Your task to perform on an android device: Turn on the flashlight Image 0: 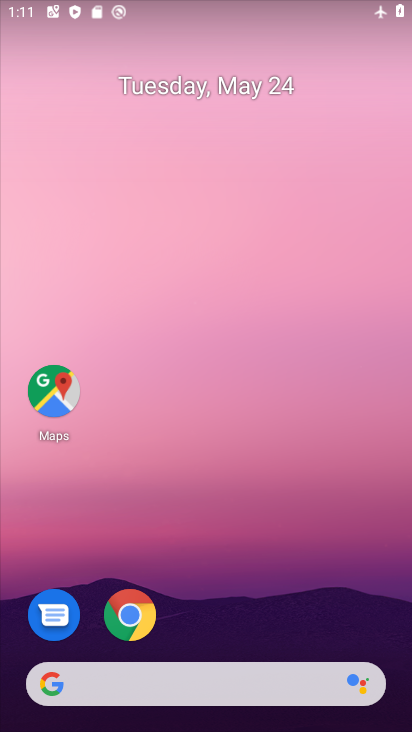
Step 0: drag from (146, 629) to (278, 16)
Your task to perform on an android device: Turn on the flashlight Image 1: 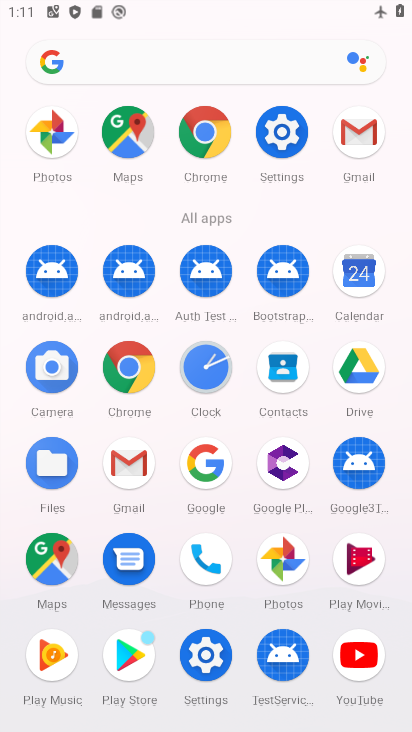
Step 1: click (281, 135)
Your task to perform on an android device: Turn on the flashlight Image 2: 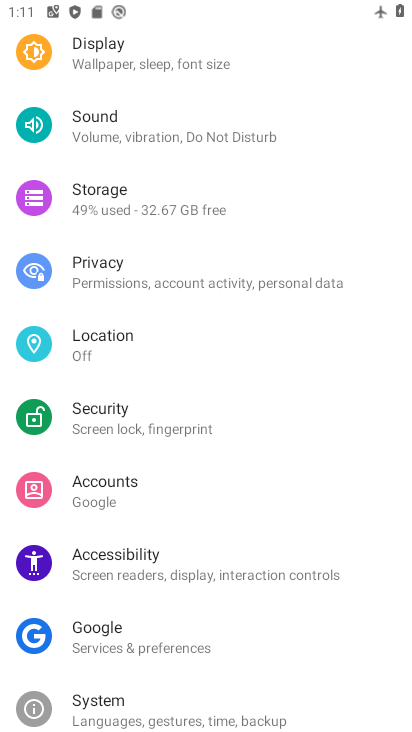
Step 2: drag from (211, 144) to (179, 726)
Your task to perform on an android device: Turn on the flashlight Image 3: 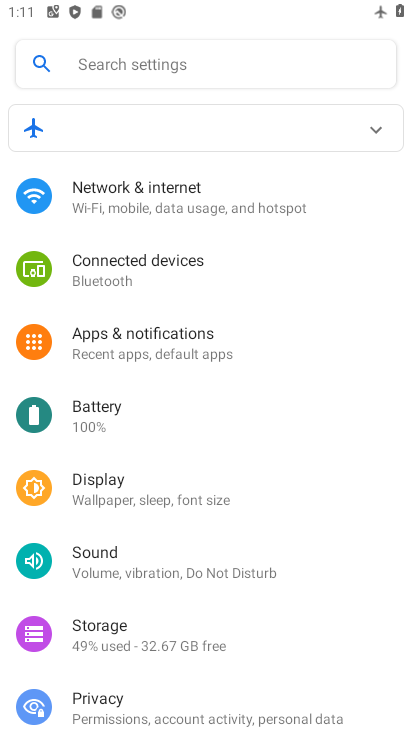
Step 3: click (143, 71)
Your task to perform on an android device: Turn on the flashlight Image 4: 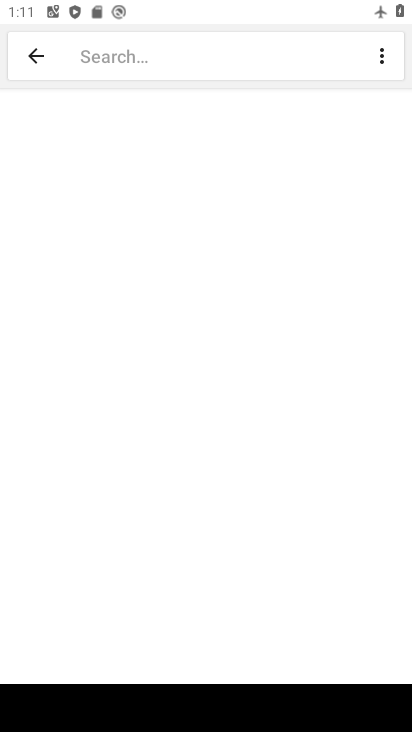
Step 4: click (108, 57)
Your task to perform on an android device: Turn on the flashlight Image 5: 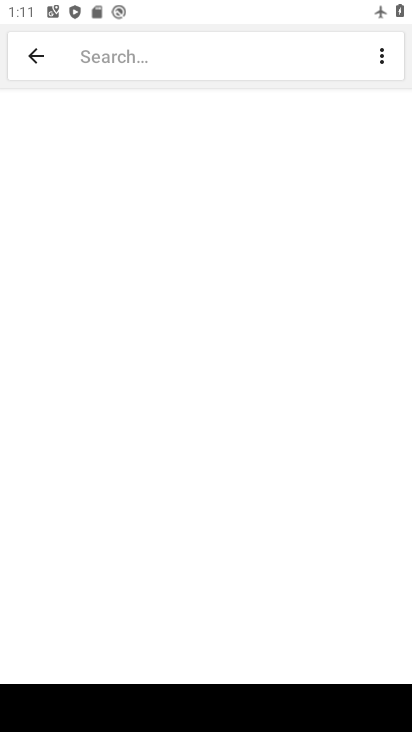
Step 5: type "flashlight"
Your task to perform on an android device: Turn on the flashlight Image 6: 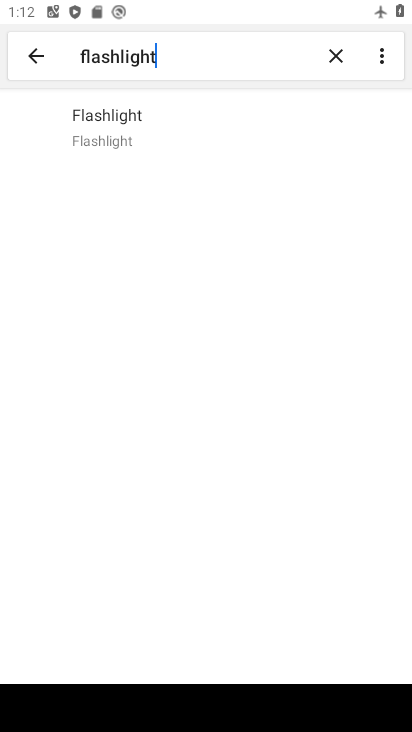
Step 6: click (120, 116)
Your task to perform on an android device: Turn on the flashlight Image 7: 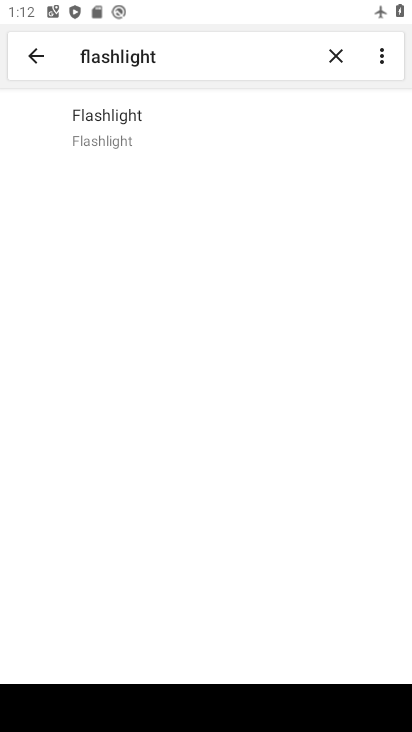
Step 7: task complete